Your task to perform on an android device: Set the phone to "Do not disturb". Image 0: 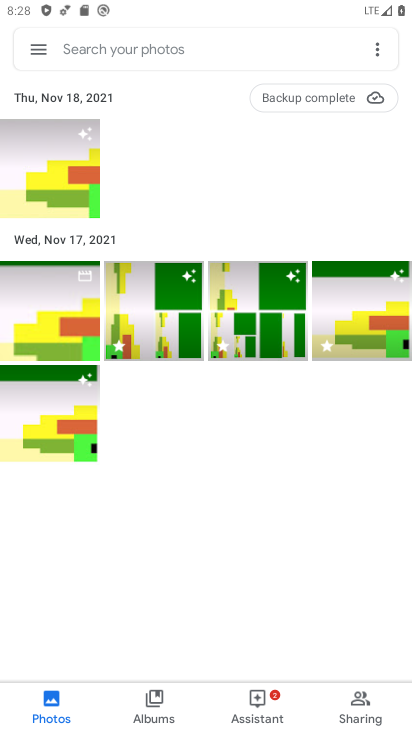
Step 0: press home button
Your task to perform on an android device: Set the phone to "Do not disturb". Image 1: 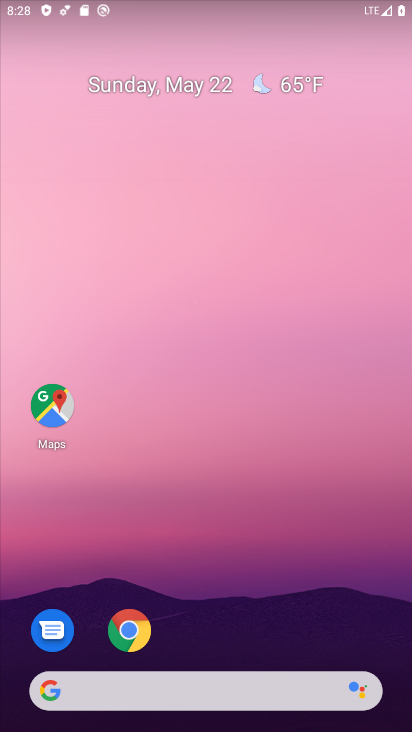
Step 1: drag from (145, 688) to (284, 91)
Your task to perform on an android device: Set the phone to "Do not disturb". Image 2: 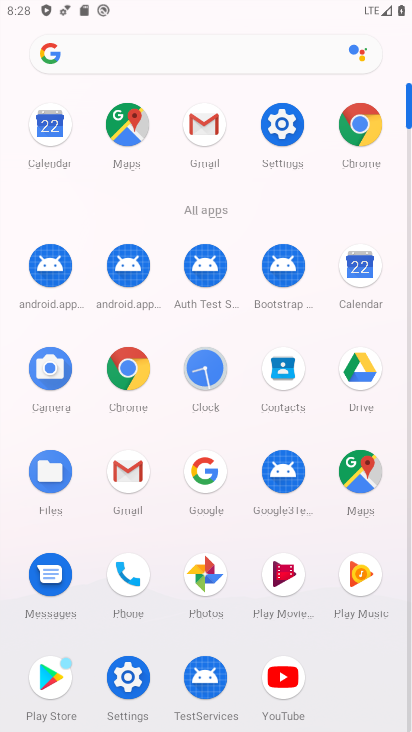
Step 2: click (279, 131)
Your task to perform on an android device: Set the phone to "Do not disturb". Image 3: 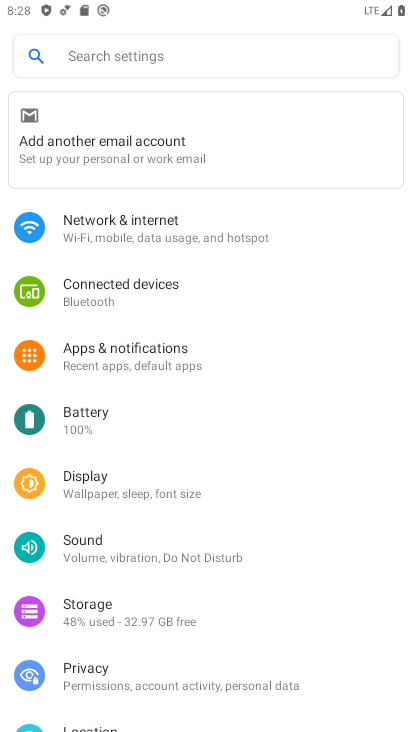
Step 3: click (135, 550)
Your task to perform on an android device: Set the phone to "Do not disturb". Image 4: 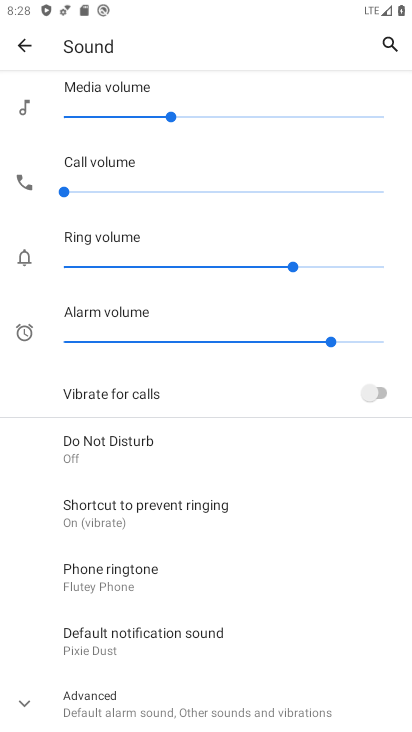
Step 4: click (101, 448)
Your task to perform on an android device: Set the phone to "Do not disturb". Image 5: 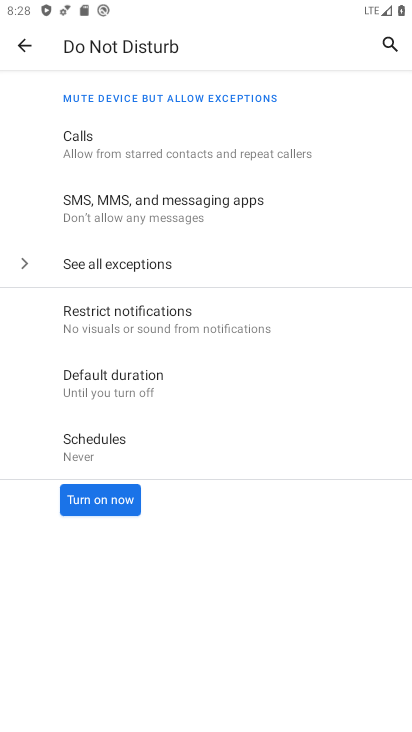
Step 5: click (97, 499)
Your task to perform on an android device: Set the phone to "Do not disturb". Image 6: 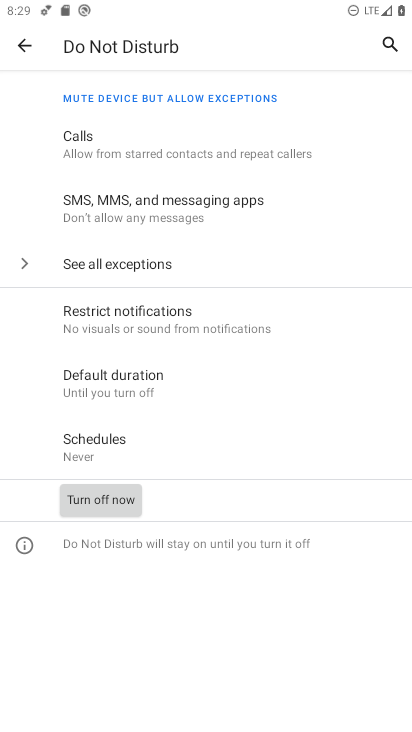
Step 6: task complete